Your task to perform on an android device: Open notification settings Image 0: 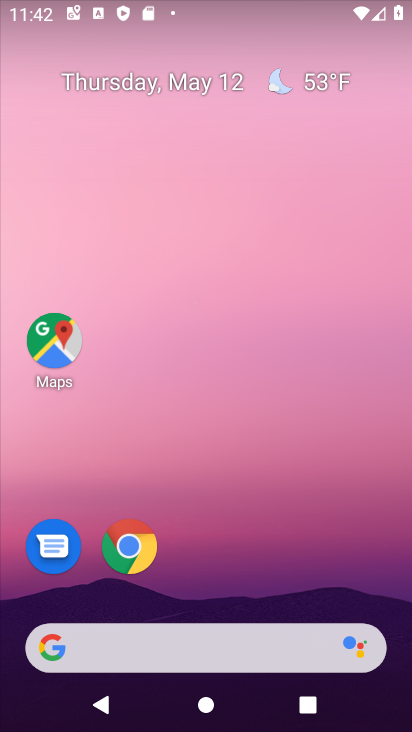
Step 0: drag from (297, 658) to (248, 349)
Your task to perform on an android device: Open notification settings Image 1: 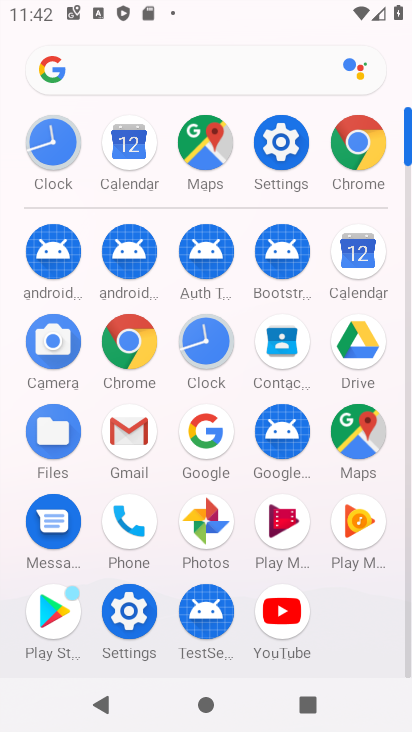
Step 1: click (144, 614)
Your task to perform on an android device: Open notification settings Image 2: 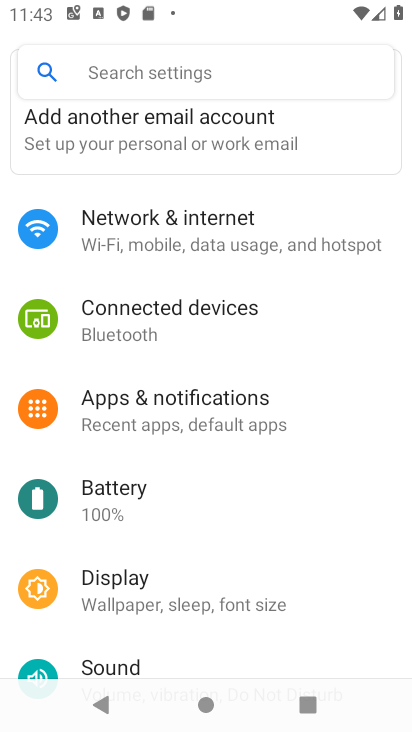
Step 2: click (126, 71)
Your task to perform on an android device: Open notification settings Image 3: 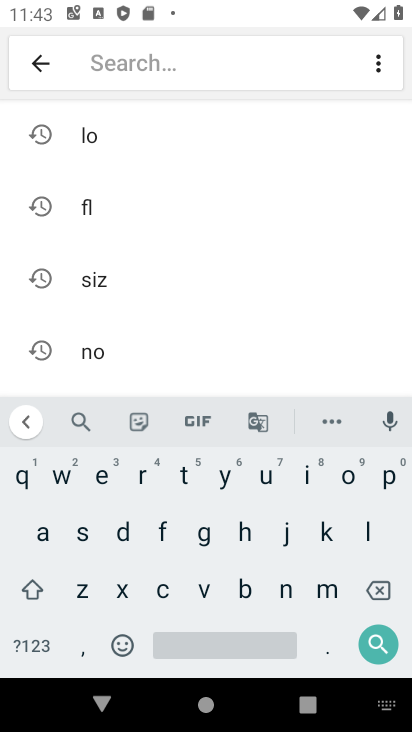
Step 3: click (281, 587)
Your task to perform on an android device: Open notification settings Image 4: 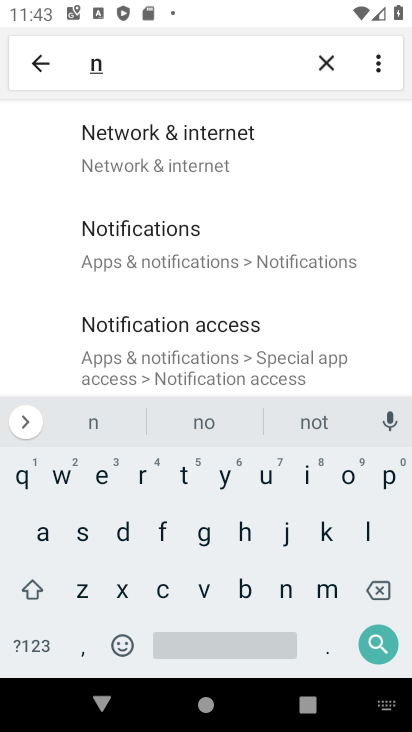
Step 4: click (348, 473)
Your task to perform on an android device: Open notification settings Image 5: 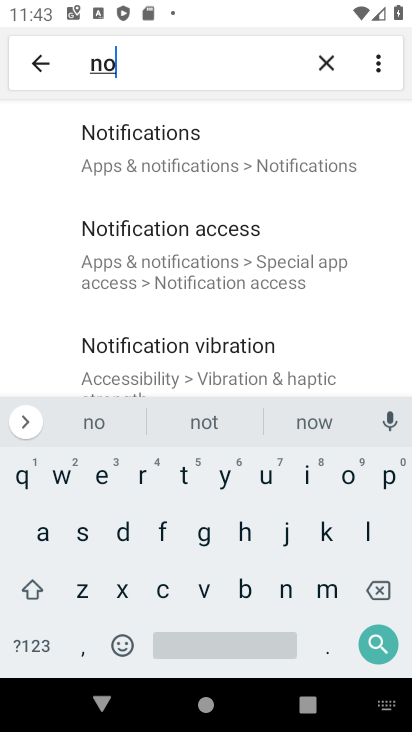
Step 5: click (119, 148)
Your task to perform on an android device: Open notification settings Image 6: 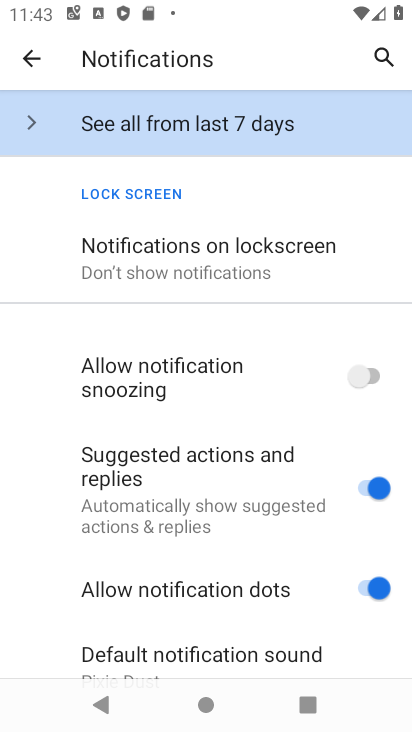
Step 6: click (126, 247)
Your task to perform on an android device: Open notification settings Image 7: 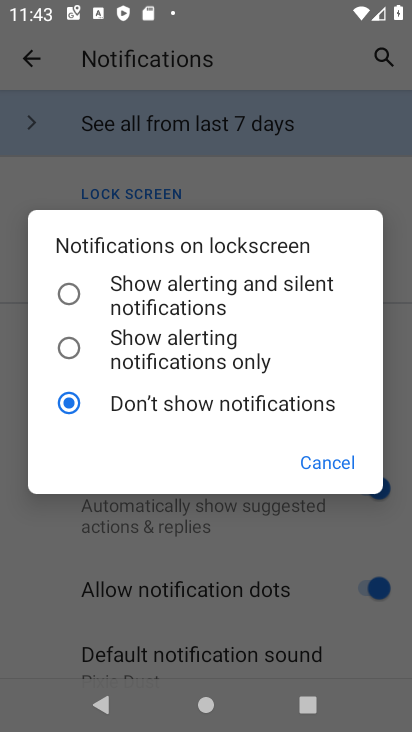
Step 7: task complete